Your task to perform on an android device: What is the news today? Image 0: 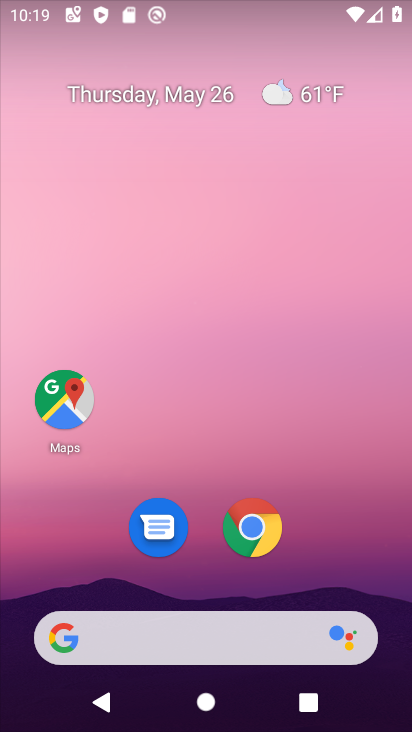
Step 0: click (162, 637)
Your task to perform on an android device: What is the news today? Image 1: 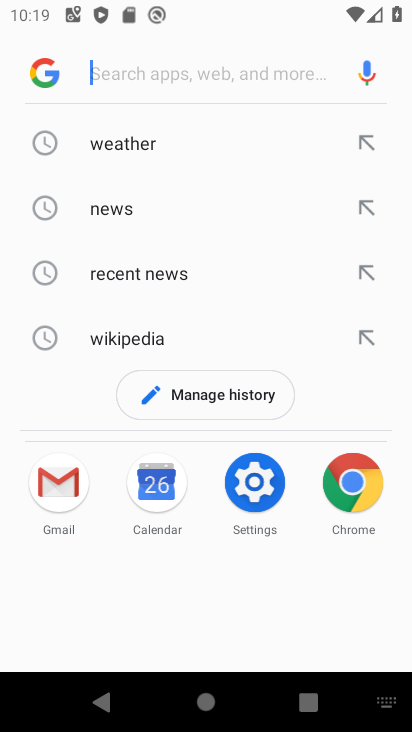
Step 1: click (130, 202)
Your task to perform on an android device: What is the news today? Image 2: 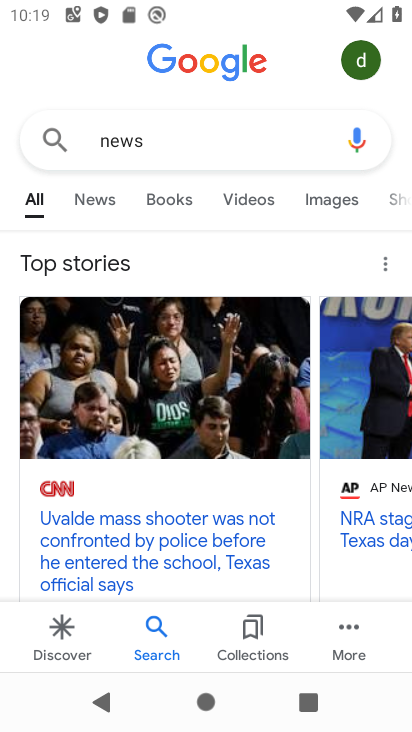
Step 2: task complete